Your task to perform on an android device: Check the settings for the Facebook app Image 0: 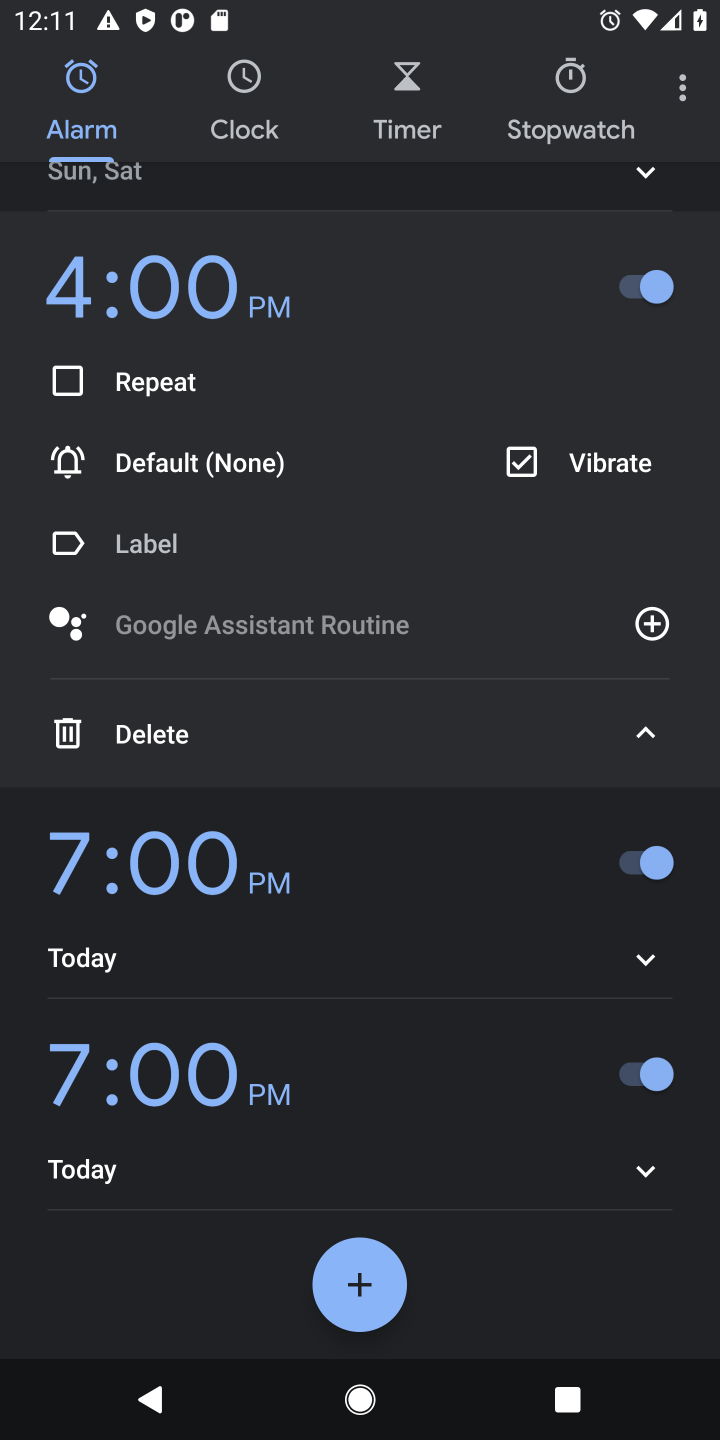
Step 0: press home button
Your task to perform on an android device: Check the settings for the Facebook app Image 1: 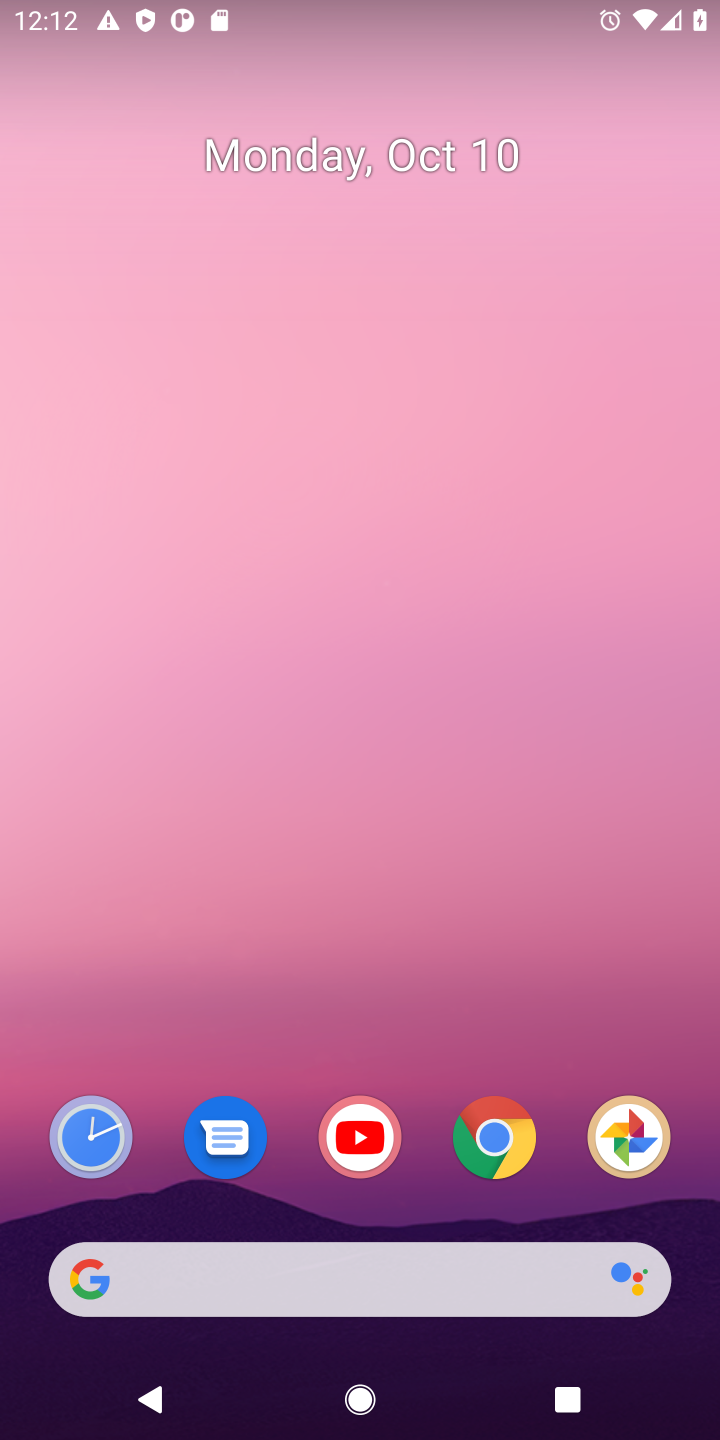
Step 1: drag from (408, 1178) to (374, 23)
Your task to perform on an android device: Check the settings for the Facebook app Image 2: 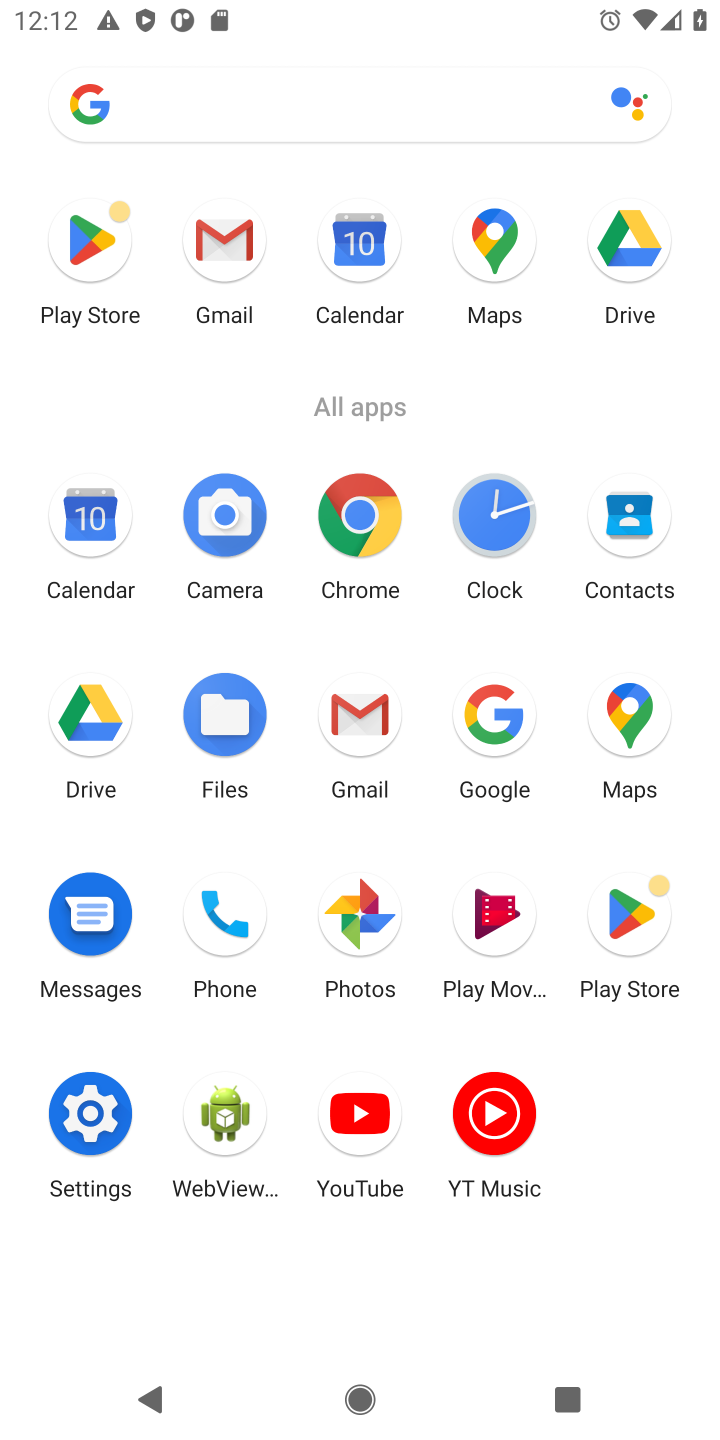
Step 2: click (360, 511)
Your task to perform on an android device: Check the settings for the Facebook app Image 3: 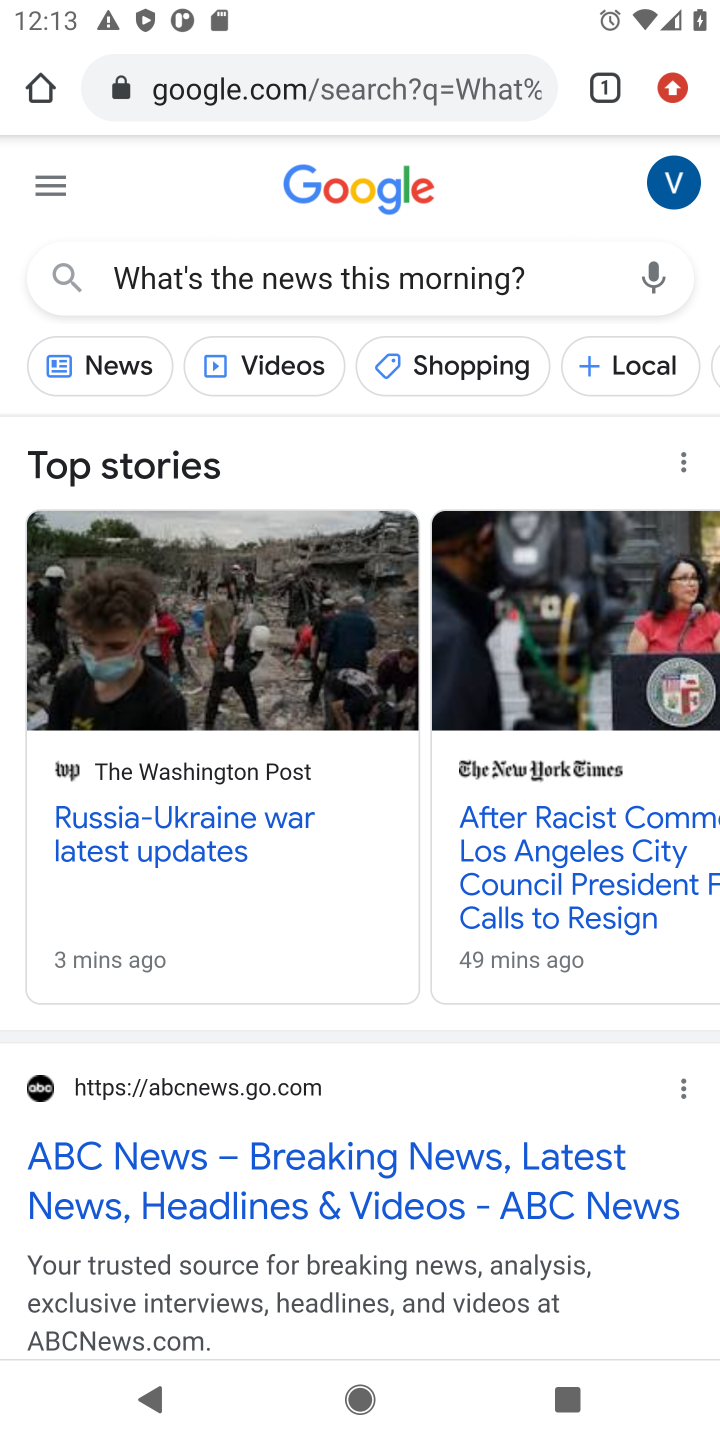
Step 3: click (466, 77)
Your task to perform on an android device: Check the settings for the Facebook app Image 4: 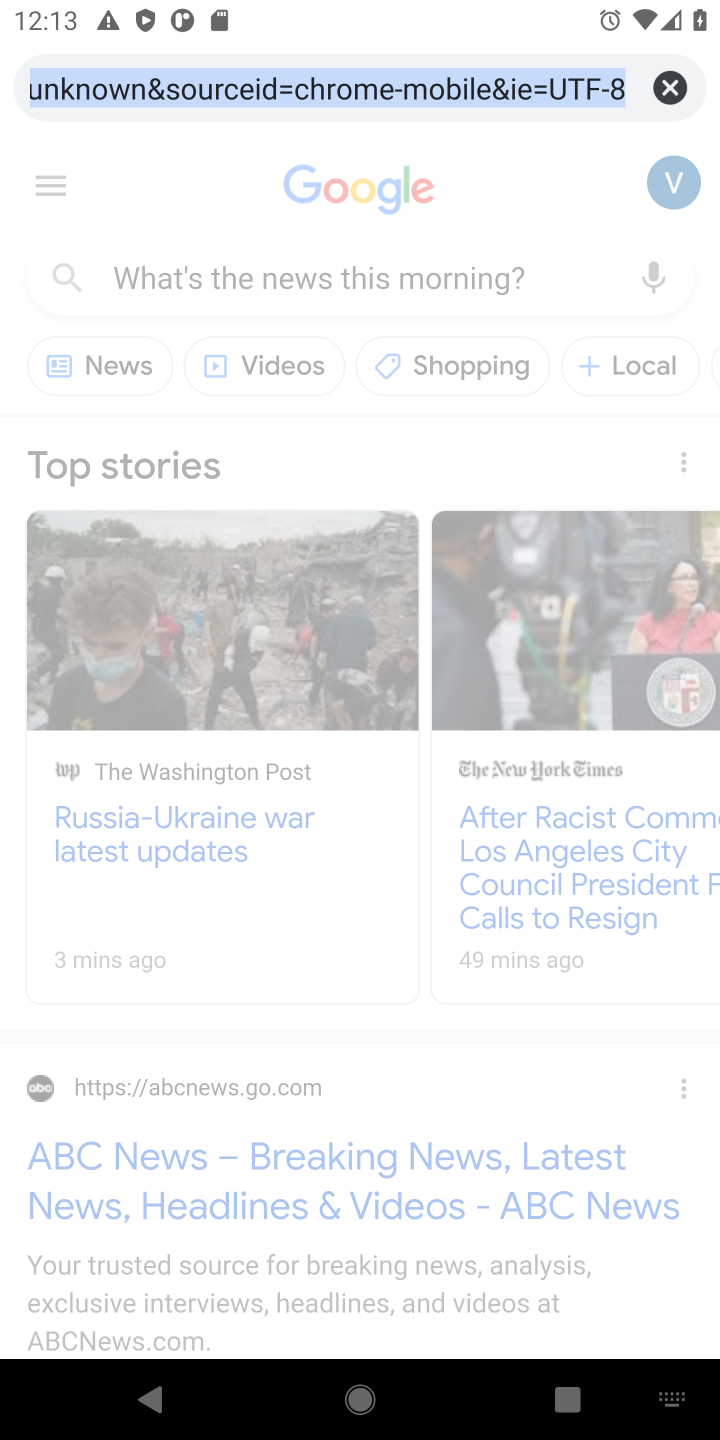
Step 4: click (661, 86)
Your task to perform on an android device: Check the settings for the Facebook app Image 5: 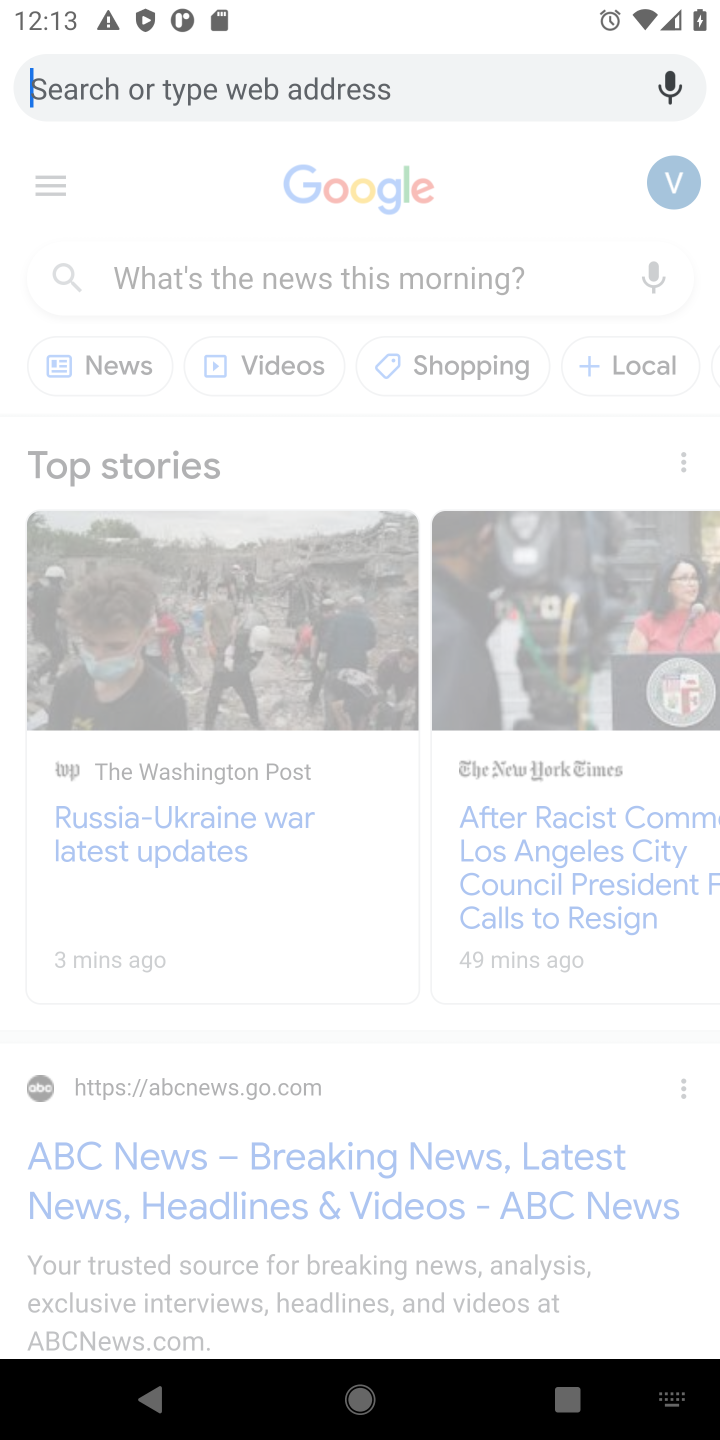
Step 5: type "Check the settings for the Facebook app"
Your task to perform on an android device: Check the settings for the Facebook app Image 6: 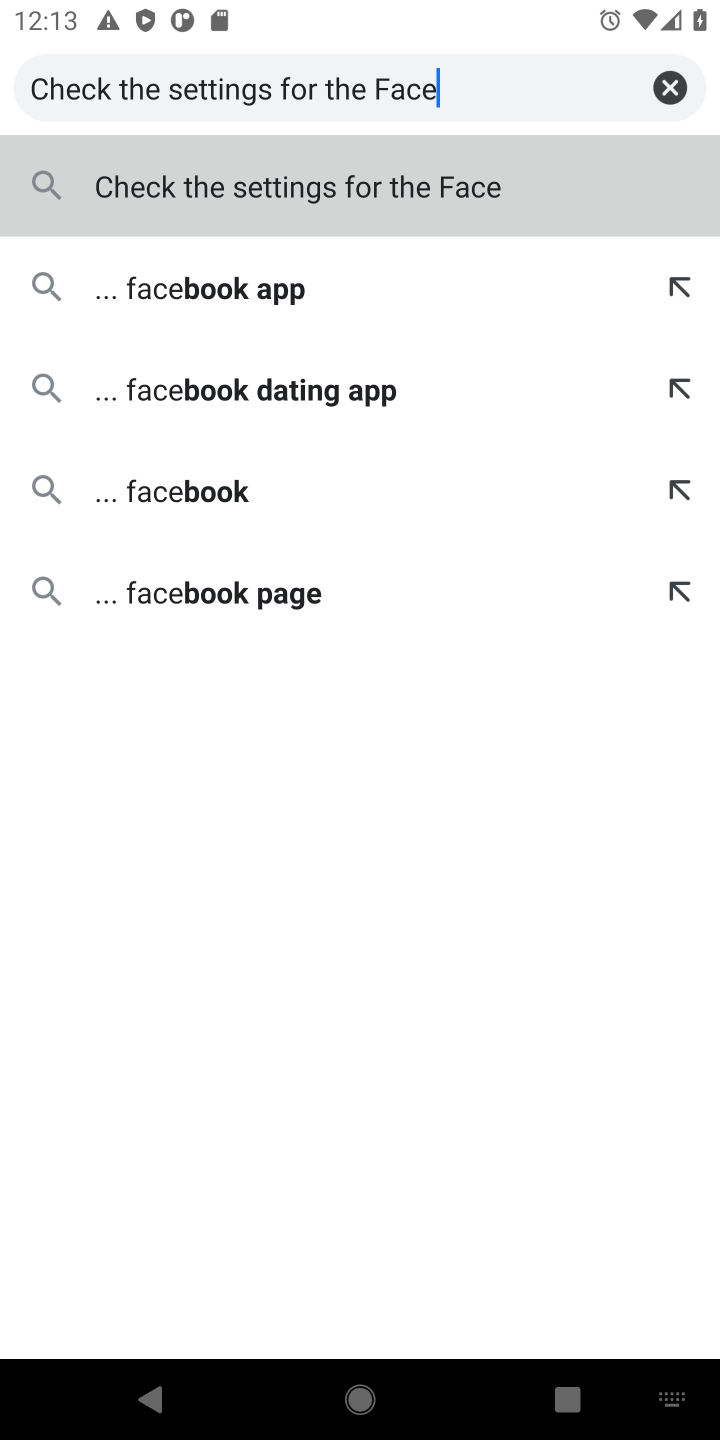
Step 6: click (325, 176)
Your task to perform on an android device: Check the settings for the Facebook app Image 7: 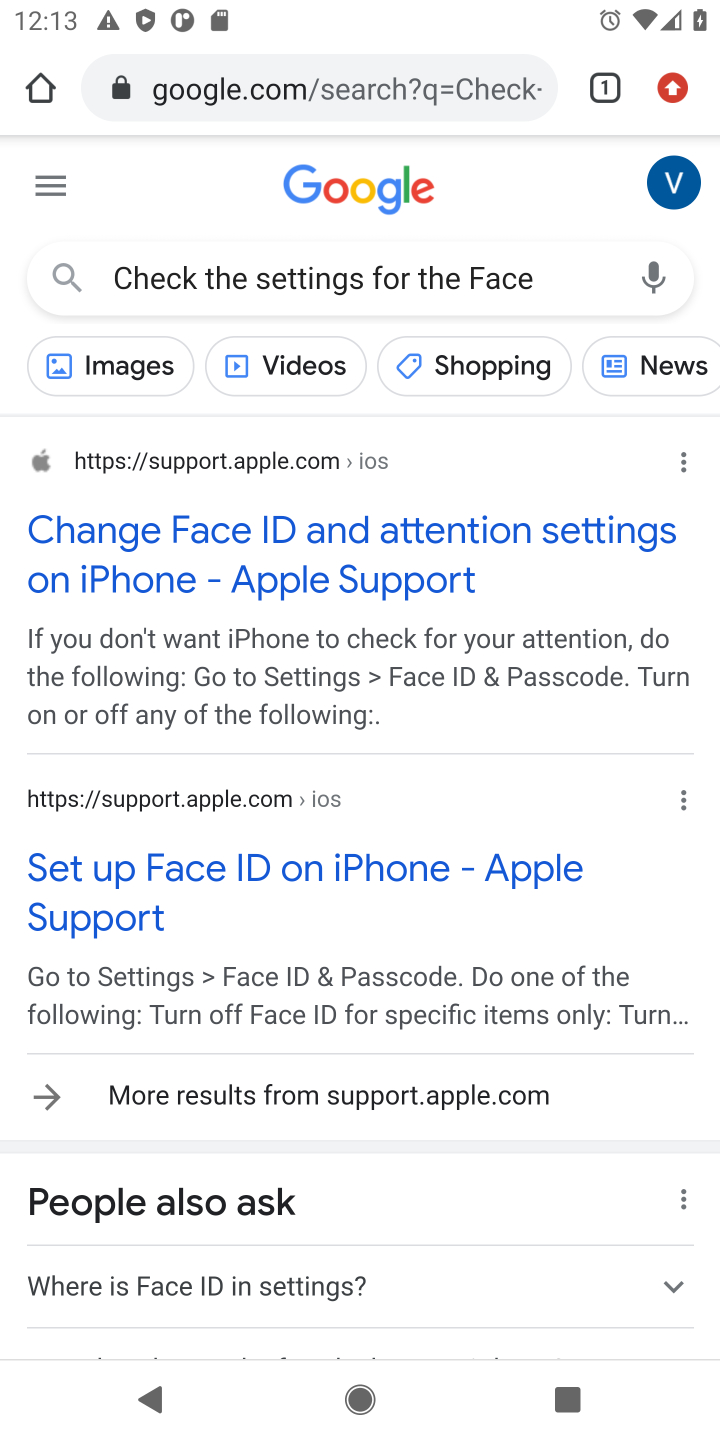
Step 7: task complete